Your task to perform on an android device: Is it going to rain today? Image 0: 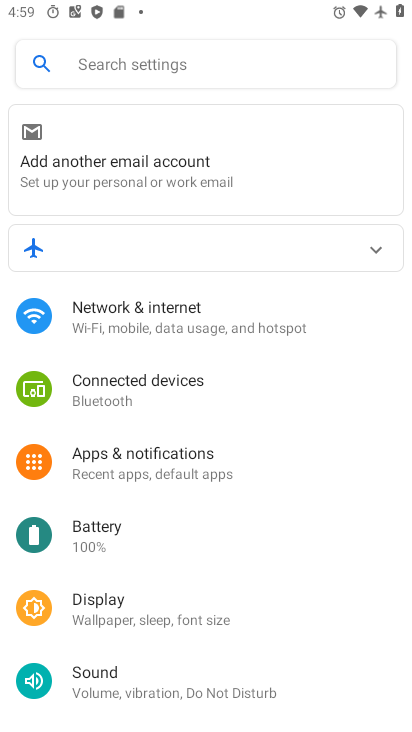
Step 0: press back button
Your task to perform on an android device: Is it going to rain today? Image 1: 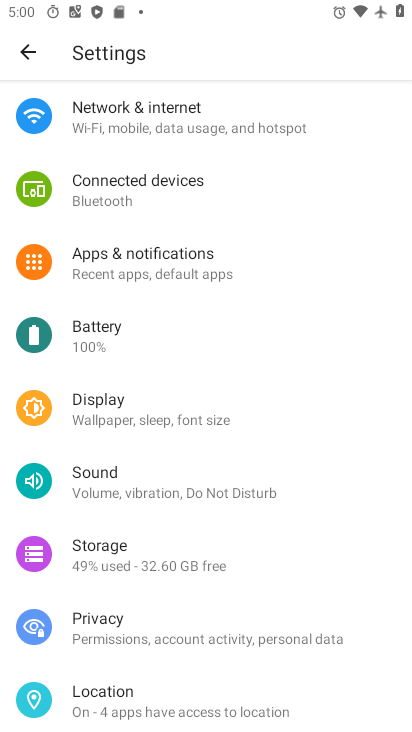
Step 1: press home button
Your task to perform on an android device: Is it going to rain today? Image 2: 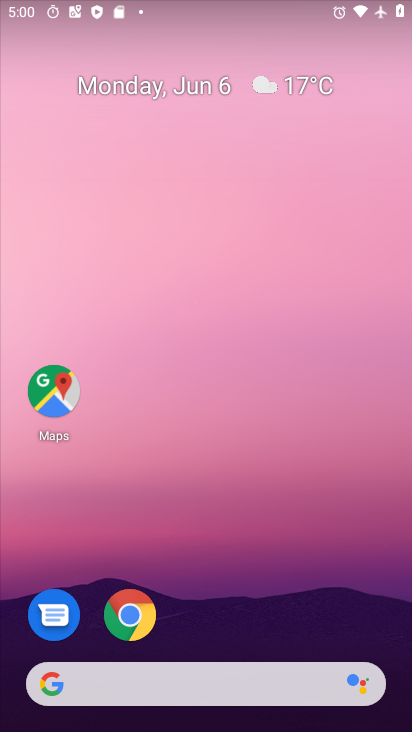
Step 2: drag from (208, 543) to (205, 54)
Your task to perform on an android device: Is it going to rain today? Image 3: 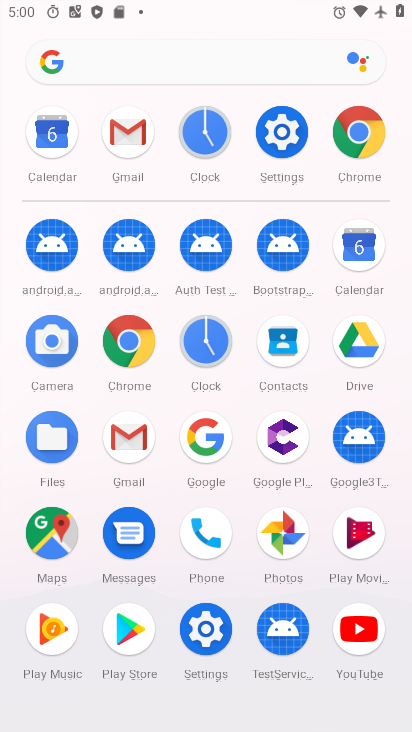
Step 3: click (132, 340)
Your task to perform on an android device: Is it going to rain today? Image 4: 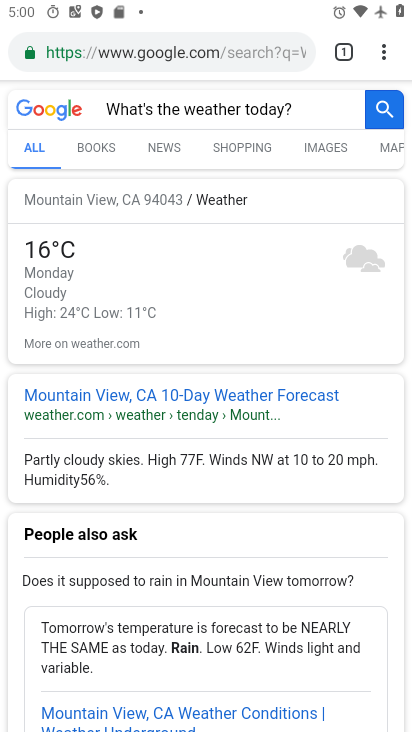
Step 4: click (166, 53)
Your task to perform on an android device: Is it going to rain today? Image 5: 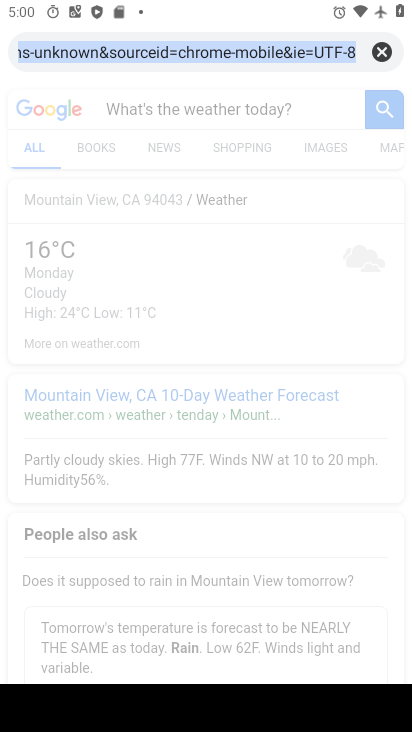
Step 5: click (381, 53)
Your task to perform on an android device: Is it going to rain today? Image 6: 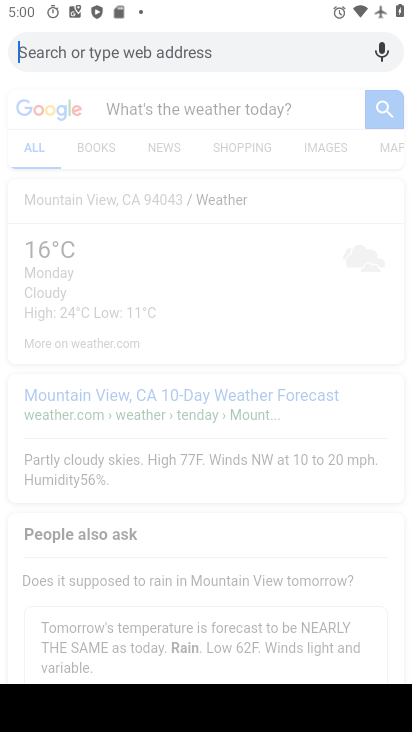
Step 6: type "Is it going to rain today?"
Your task to perform on an android device: Is it going to rain today? Image 7: 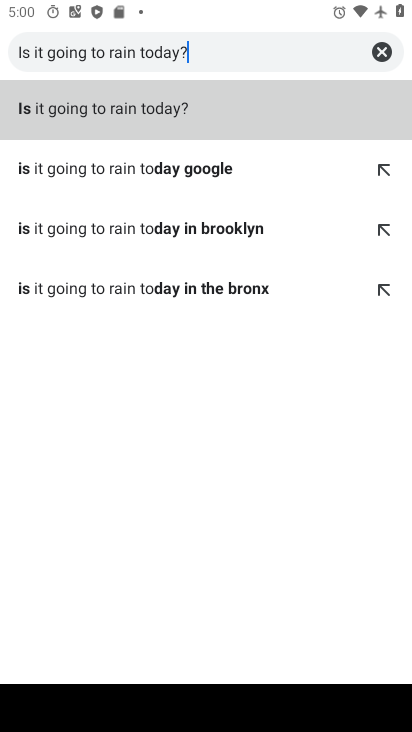
Step 7: type ""
Your task to perform on an android device: Is it going to rain today? Image 8: 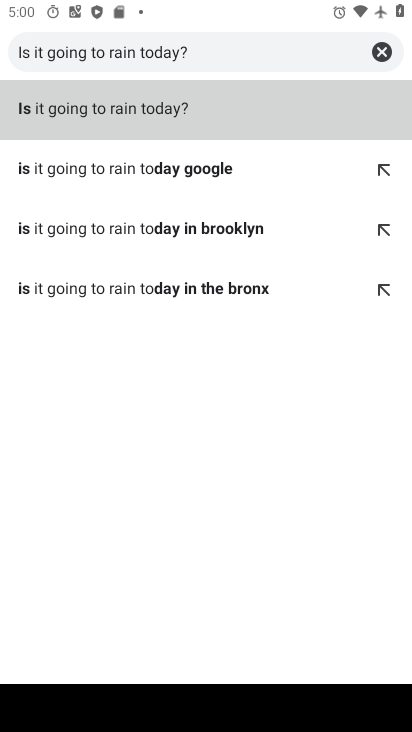
Step 8: click (187, 110)
Your task to perform on an android device: Is it going to rain today? Image 9: 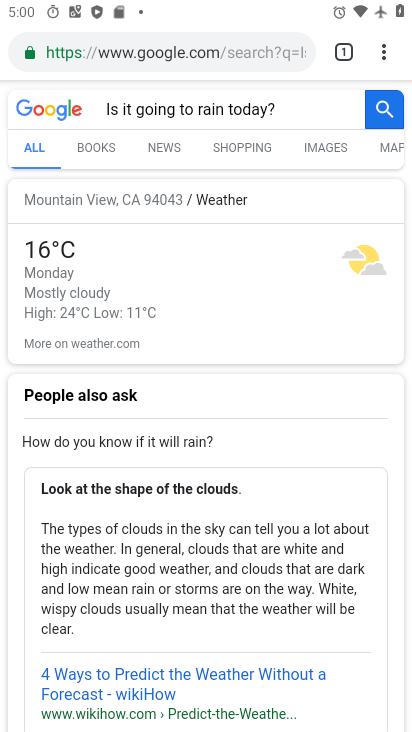
Step 9: task complete